Your task to perform on an android device: Open privacy settings Image 0: 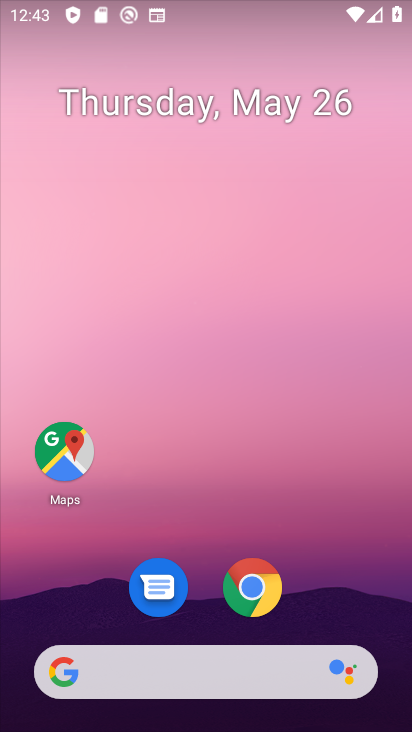
Step 0: drag from (350, 593) to (352, 222)
Your task to perform on an android device: Open privacy settings Image 1: 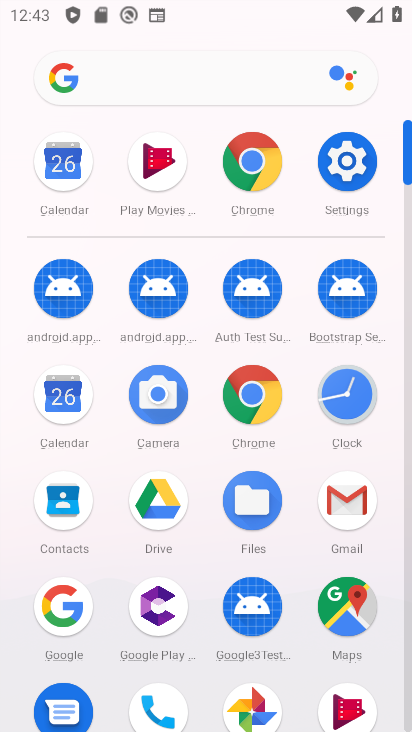
Step 1: click (357, 174)
Your task to perform on an android device: Open privacy settings Image 2: 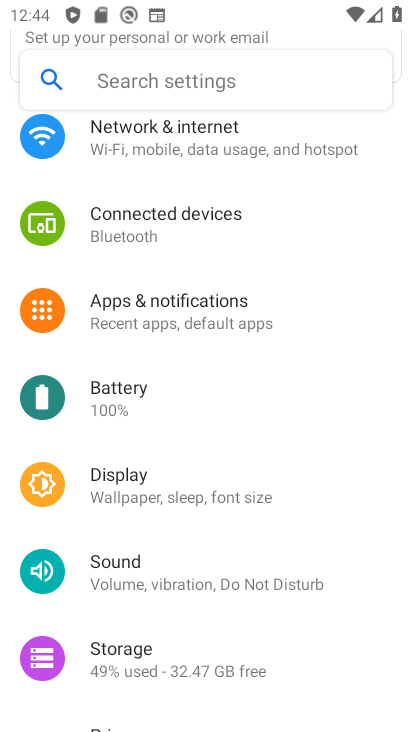
Step 2: drag from (343, 257) to (347, 344)
Your task to perform on an android device: Open privacy settings Image 3: 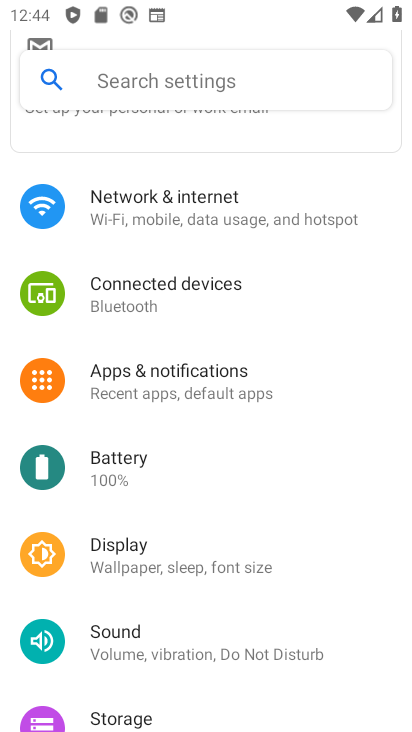
Step 3: drag from (349, 274) to (349, 370)
Your task to perform on an android device: Open privacy settings Image 4: 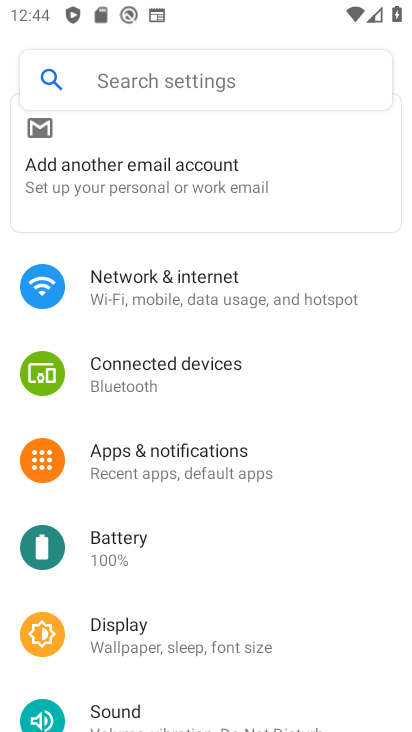
Step 4: drag from (366, 268) to (372, 384)
Your task to perform on an android device: Open privacy settings Image 5: 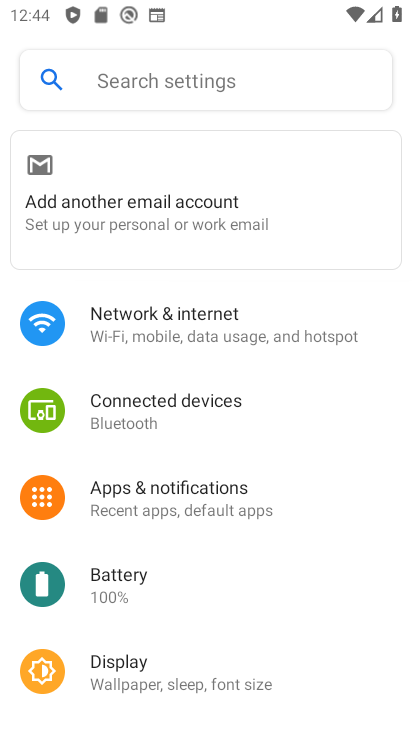
Step 5: drag from (371, 458) to (364, 350)
Your task to perform on an android device: Open privacy settings Image 6: 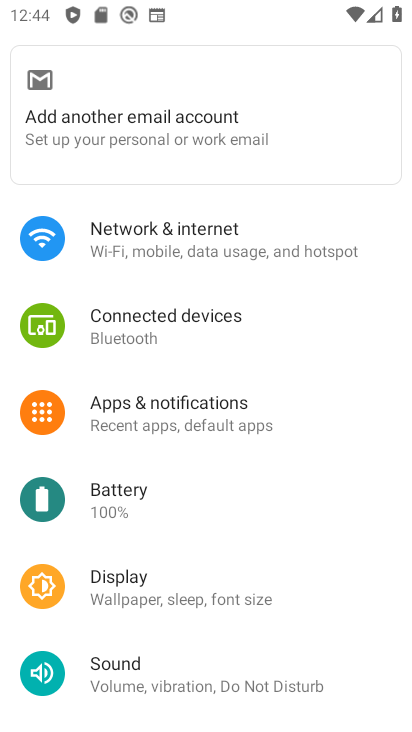
Step 6: drag from (364, 427) to (356, 353)
Your task to perform on an android device: Open privacy settings Image 7: 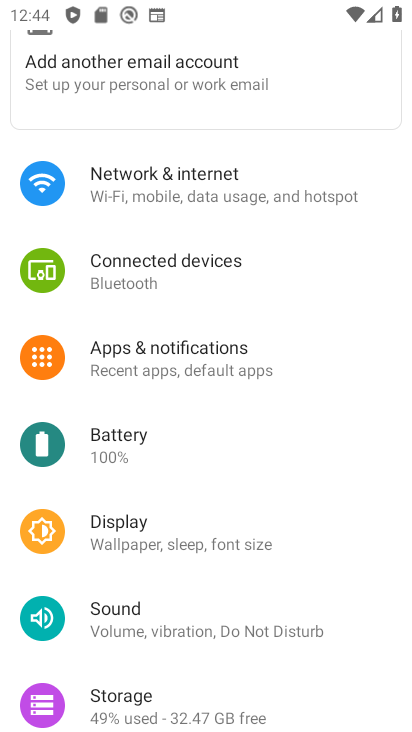
Step 7: drag from (349, 443) to (349, 371)
Your task to perform on an android device: Open privacy settings Image 8: 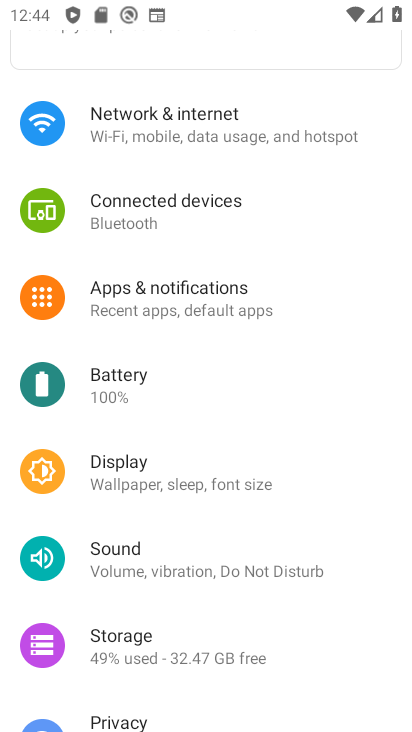
Step 8: drag from (348, 455) to (348, 386)
Your task to perform on an android device: Open privacy settings Image 9: 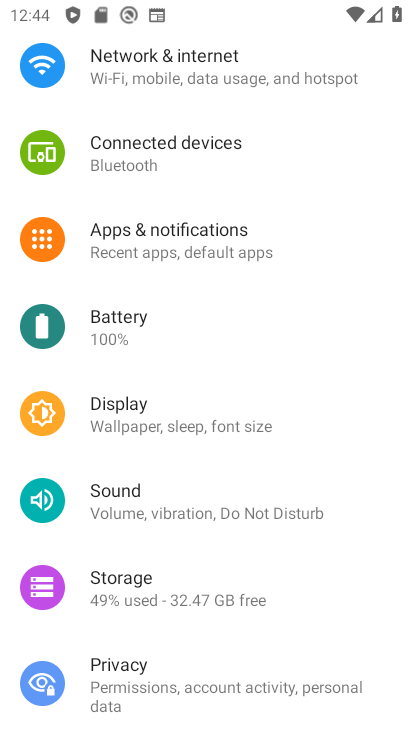
Step 9: drag from (348, 454) to (348, 382)
Your task to perform on an android device: Open privacy settings Image 10: 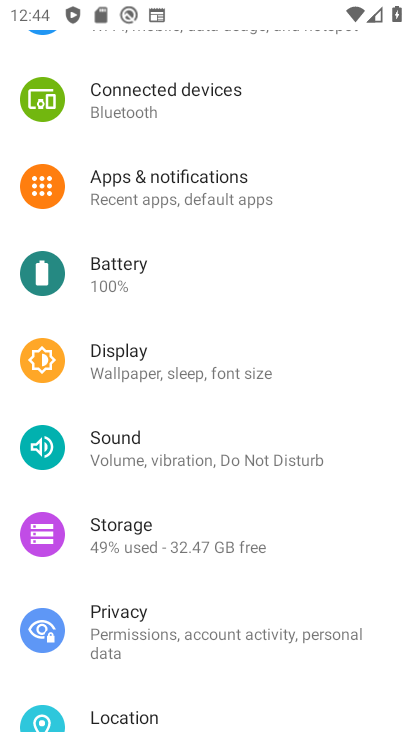
Step 10: drag from (347, 455) to (346, 361)
Your task to perform on an android device: Open privacy settings Image 11: 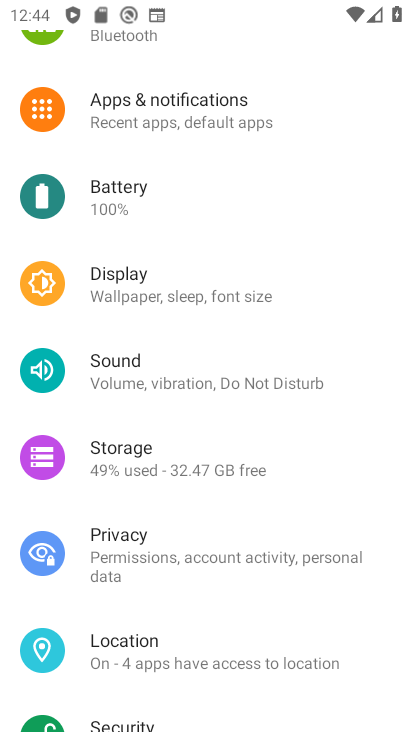
Step 11: drag from (358, 483) to (354, 394)
Your task to perform on an android device: Open privacy settings Image 12: 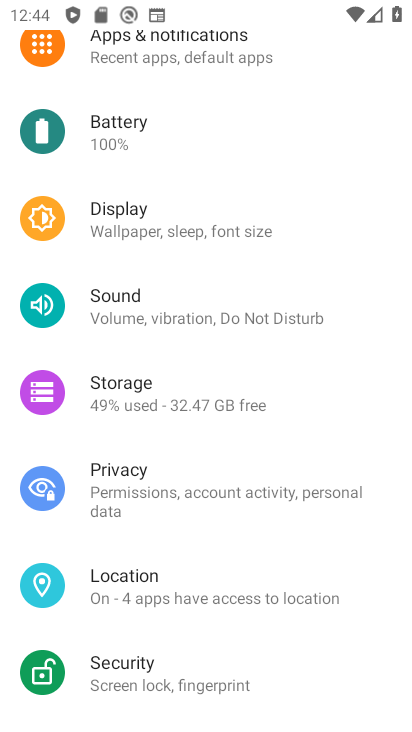
Step 12: drag from (346, 509) to (347, 389)
Your task to perform on an android device: Open privacy settings Image 13: 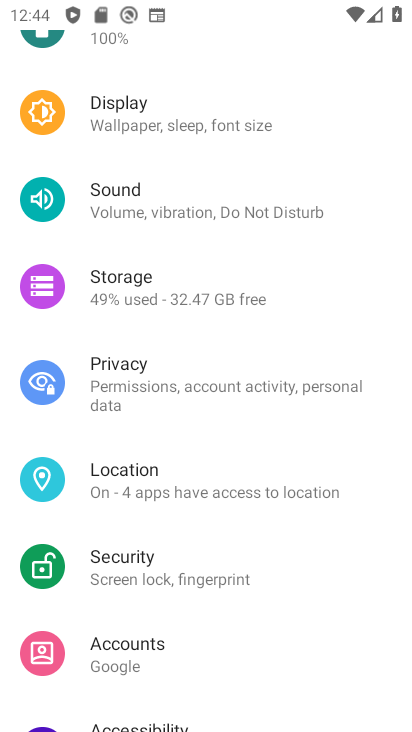
Step 13: click (290, 397)
Your task to perform on an android device: Open privacy settings Image 14: 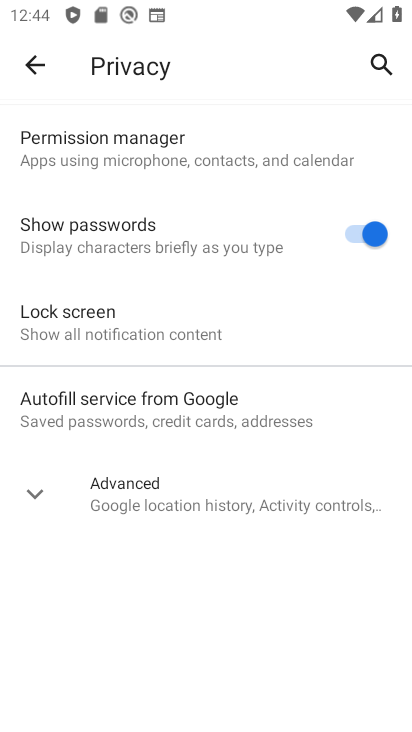
Step 14: click (291, 501)
Your task to perform on an android device: Open privacy settings Image 15: 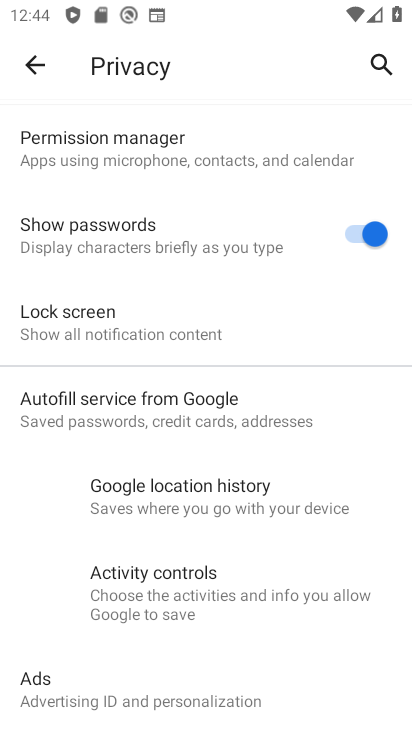
Step 15: task complete